Your task to perform on an android device: Open Chrome and go to settings Image 0: 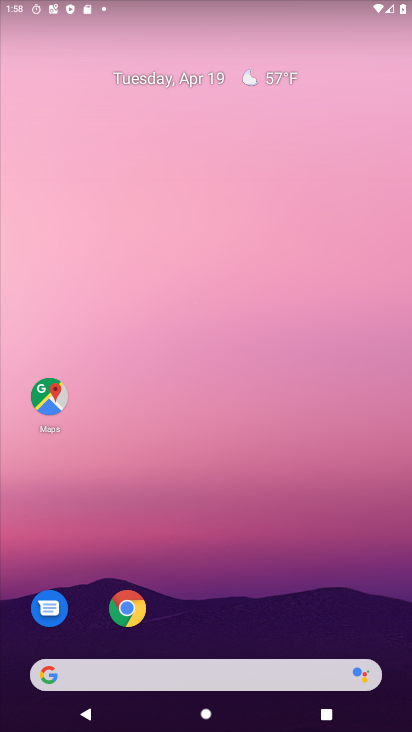
Step 0: click (129, 609)
Your task to perform on an android device: Open Chrome and go to settings Image 1: 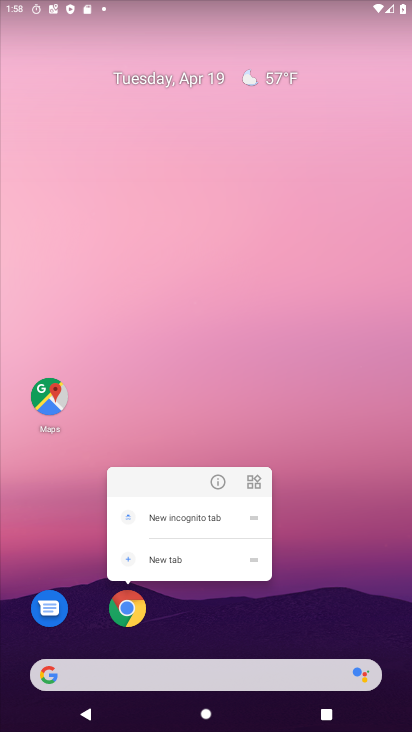
Step 1: click (129, 609)
Your task to perform on an android device: Open Chrome and go to settings Image 2: 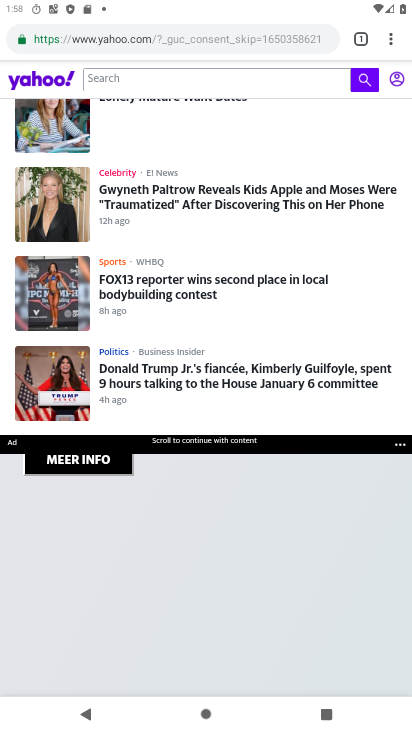
Step 2: click (392, 40)
Your task to perform on an android device: Open Chrome and go to settings Image 3: 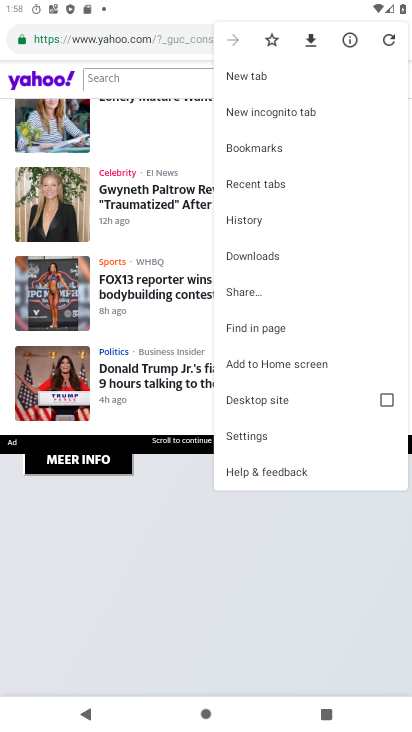
Step 3: click (258, 438)
Your task to perform on an android device: Open Chrome and go to settings Image 4: 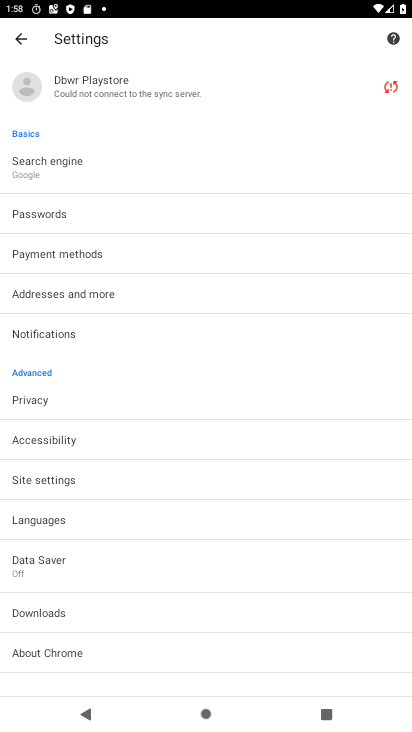
Step 4: click (66, 484)
Your task to perform on an android device: Open Chrome and go to settings Image 5: 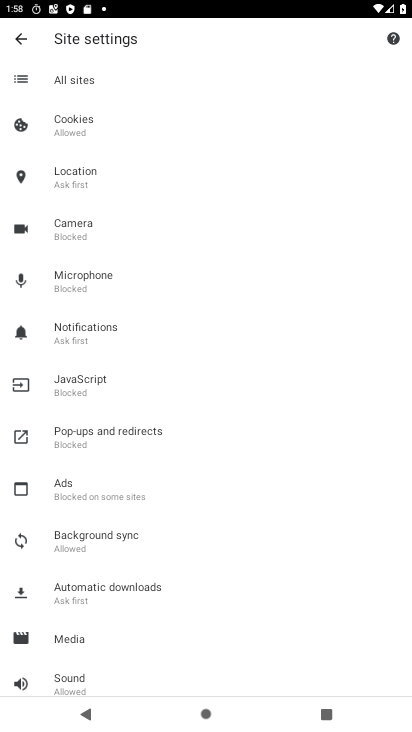
Step 5: task complete